Your task to perform on an android device: Open display settings Image 0: 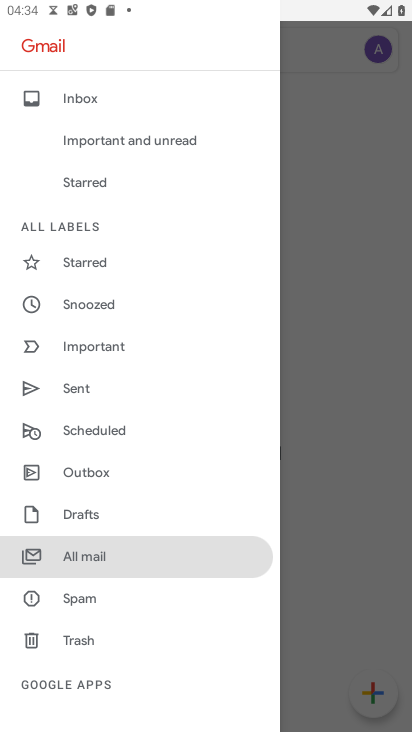
Step 0: press home button
Your task to perform on an android device: Open display settings Image 1: 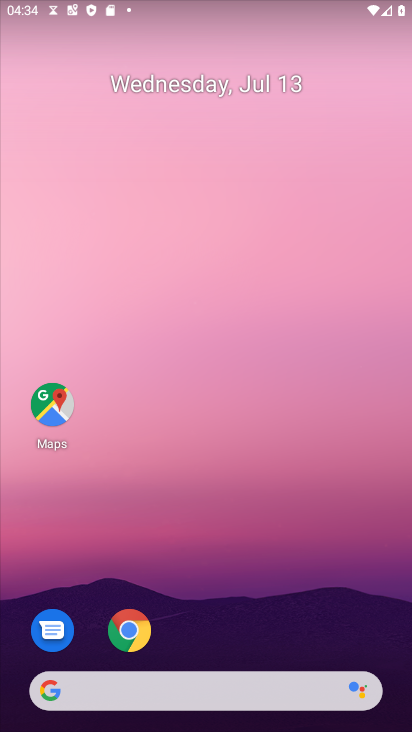
Step 1: drag from (182, 695) to (223, 2)
Your task to perform on an android device: Open display settings Image 2: 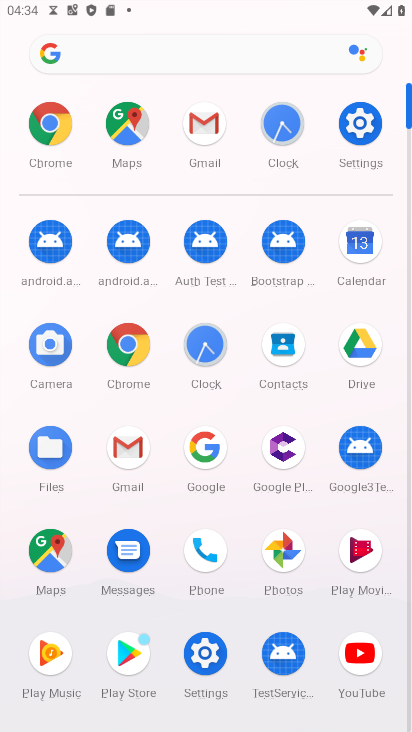
Step 2: click (378, 130)
Your task to perform on an android device: Open display settings Image 3: 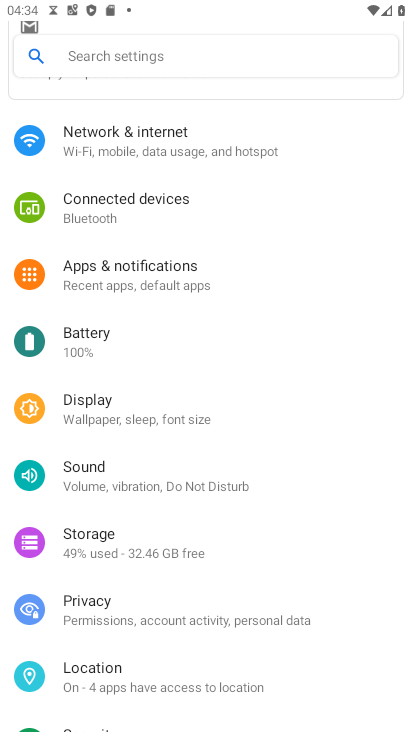
Step 3: click (107, 406)
Your task to perform on an android device: Open display settings Image 4: 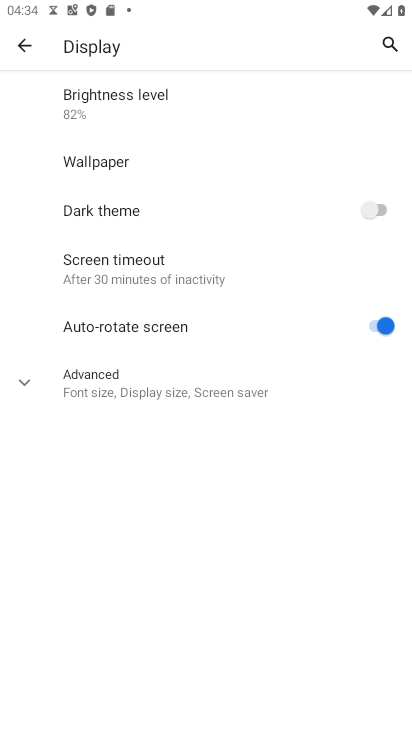
Step 4: task complete